Your task to perform on an android device: Is it going to rain tomorrow? Image 0: 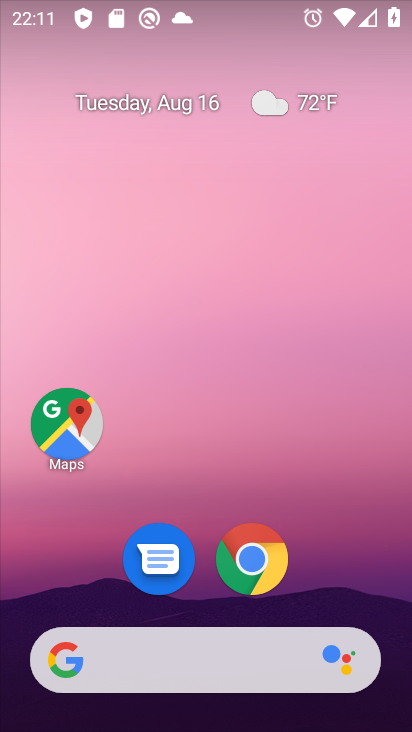
Step 0: drag from (196, 669) to (225, 103)
Your task to perform on an android device: Is it going to rain tomorrow? Image 1: 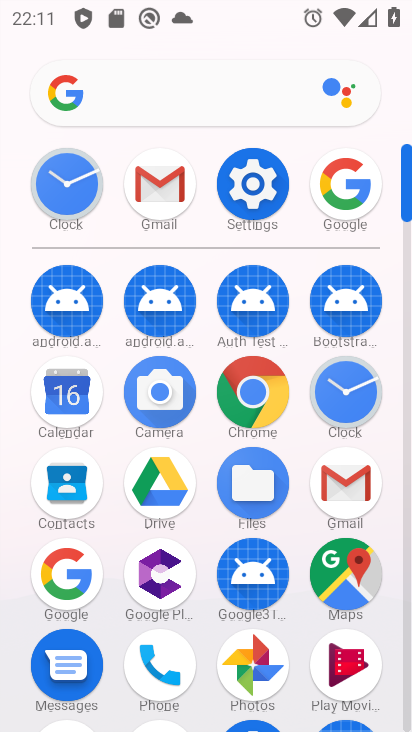
Step 1: click (61, 573)
Your task to perform on an android device: Is it going to rain tomorrow? Image 2: 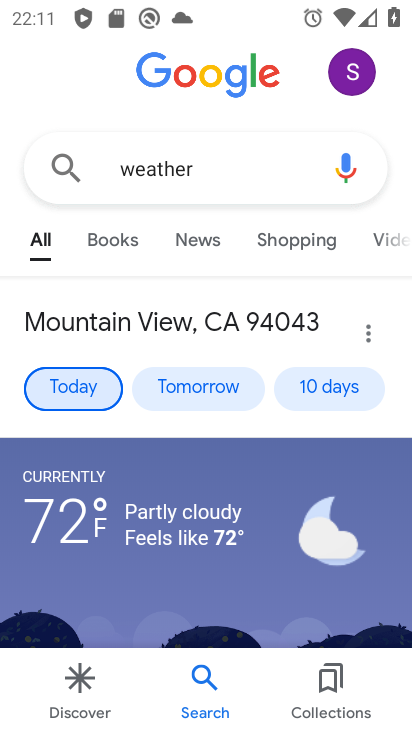
Step 2: click (216, 166)
Your task to perform on an android device: Is it going to rain tomorrow? Image 3: 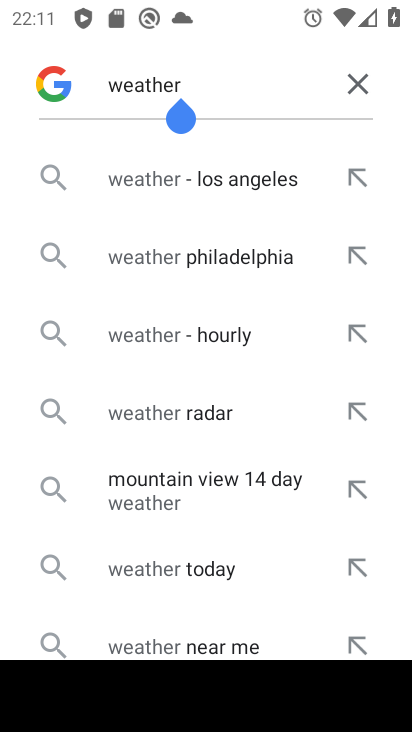
Step 3: click (356, 82)
Your task to perform on an android device: Is it going to rain tomorrow? Image 4: 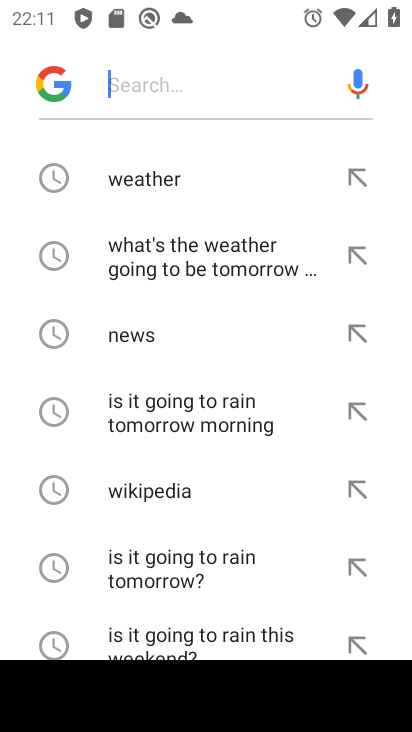
Step 4: type "Is it going to rain tomorrow?"
Your task to perform on an android device: Is it going to rain tomorrow? Image 5: 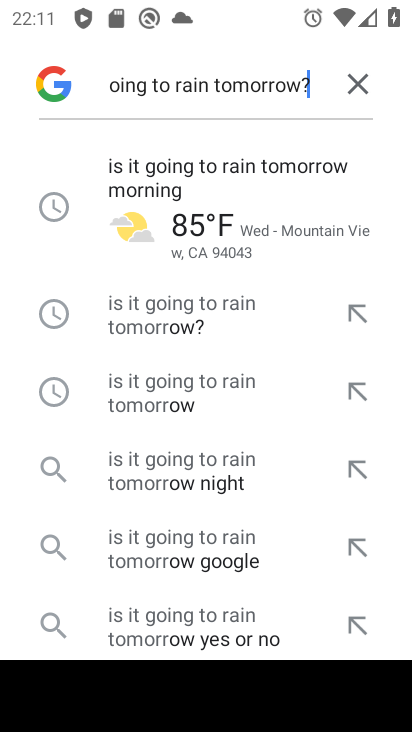
Step 5: type ""
Your task to perform on an android device: Is it going to rain tomorrow? Image 6: 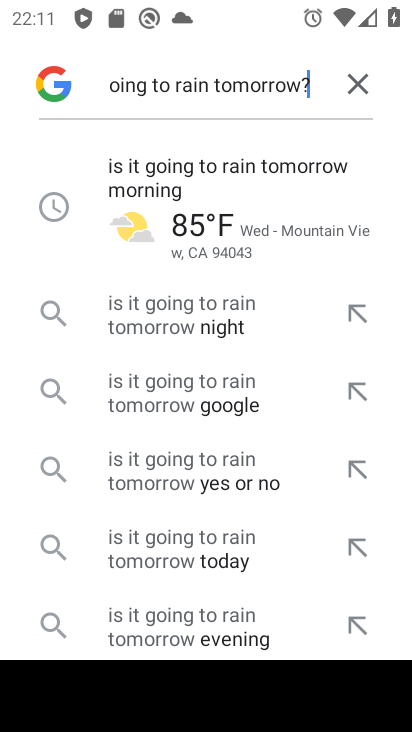
Step 6: click (159, 191)
Your task to perform on an android device: Is it going to rain tomorrow? Image 7: 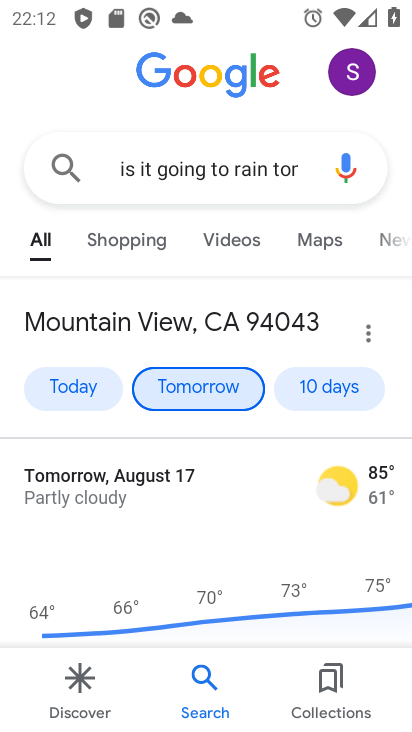
Step 7: task complete